Your task to perform on an android device: Open Reddit.com Image 0: 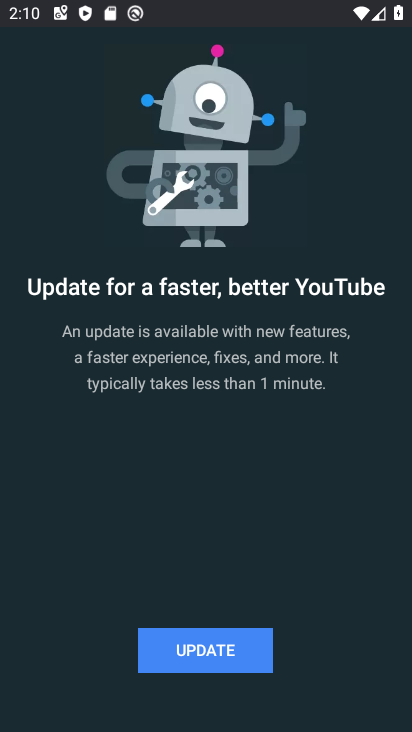
Step 0: press home button
Your task to perform on an android device: Open Reddit.com Image 1: 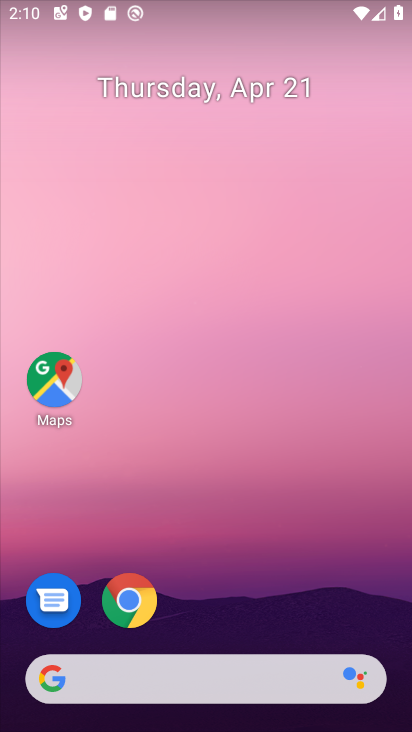
Step 1: click (136, 594)
Your task to perform on an android device: Open Reddit.com Image 2: 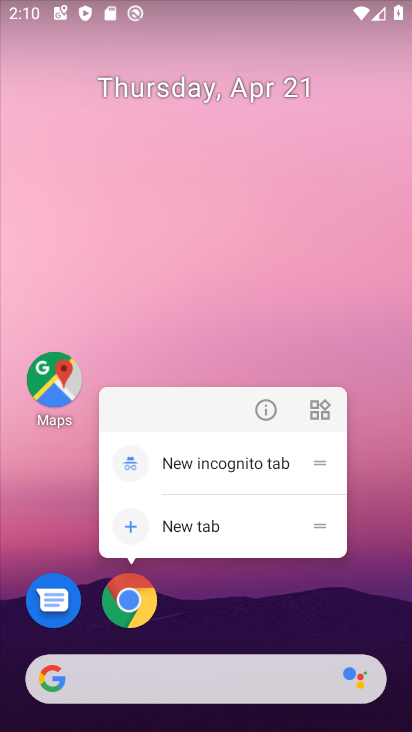
Step 2: click (129, 599)
Your task to perform on an android device: Open Reddit.com Image 3: 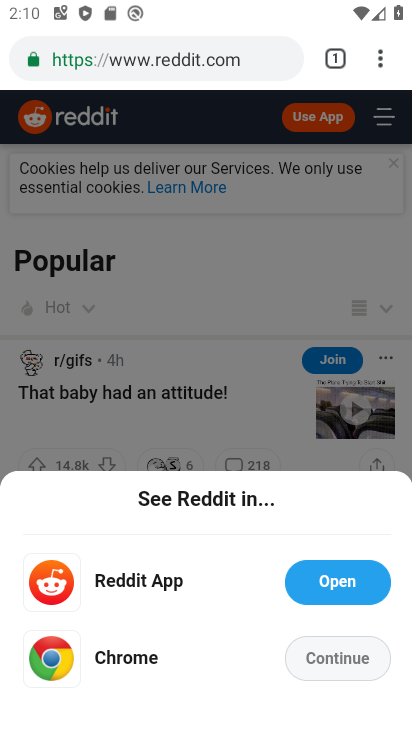
Step 3: task complete